Your task to perform on an android device: add a contact in the contacts app Image 0: 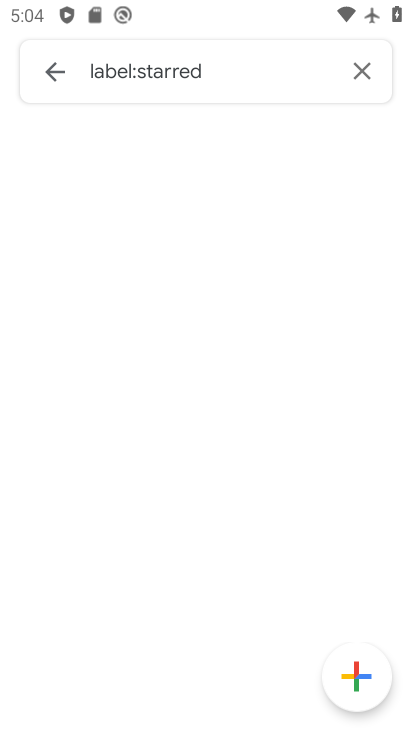
Step 0: drag from (341, 543) to (279, 206)
Your task to perform on an android device: add a contact in the contacts app Image 1: 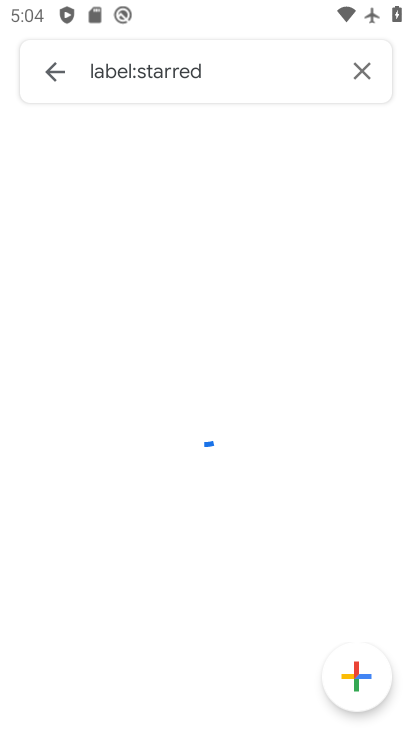
Step 1: press home button
Your task to perform on an android device: add a contact in the contacts app Image 2: 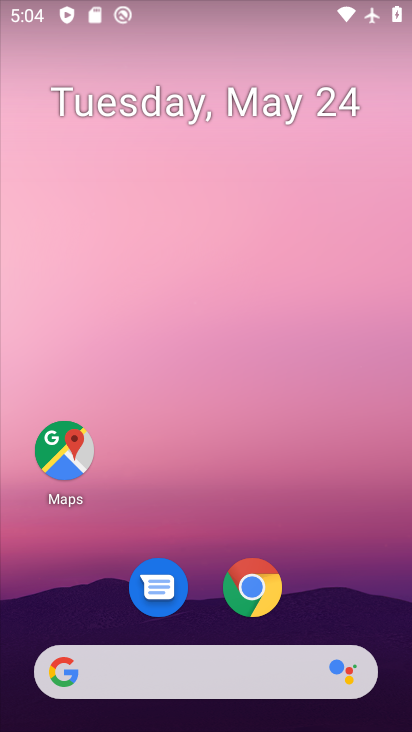
Step 2: drag from (348, 592) to (205, 107)
Your task to perform on an android device: add a contact in the contacts app Image 3: 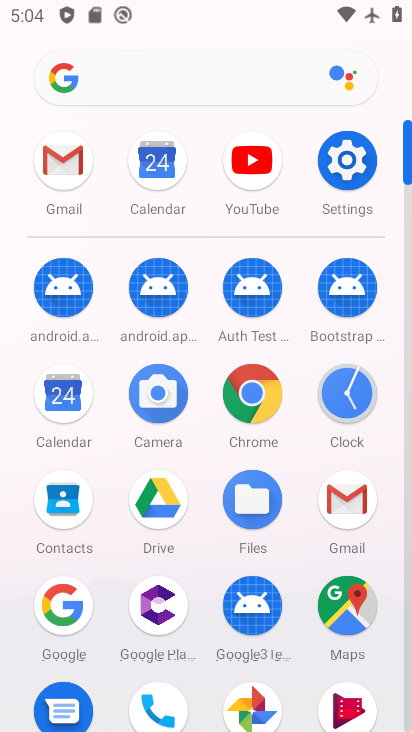
Step 3: click (73, 500)
Your task to perform on an android device: add a contact in the contacts app Image 4: 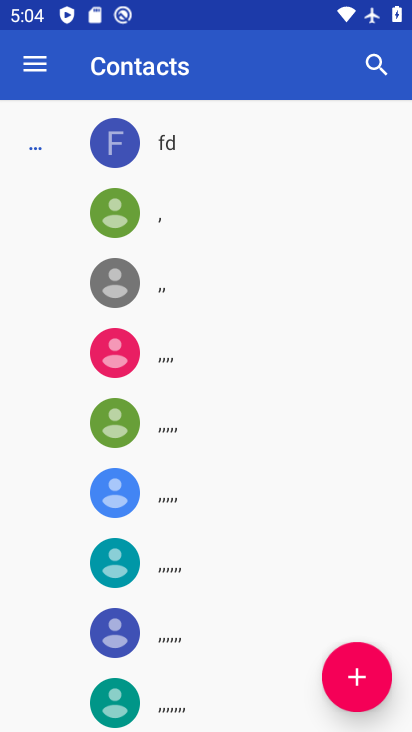
Step 4: click (353, 674)
Your task to perform on an android device: add a contact in the contacts app Image 5: 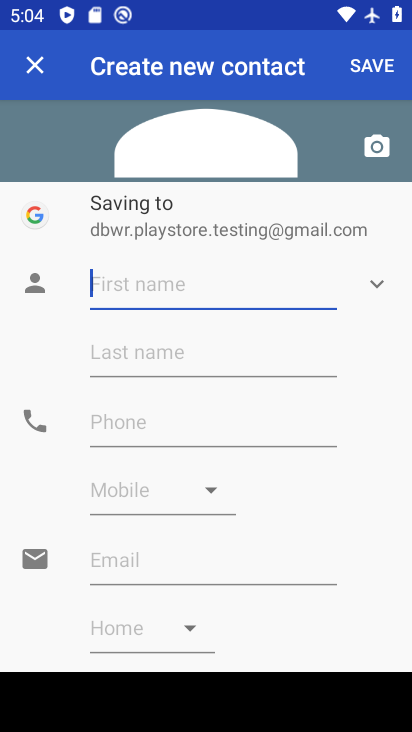
Step 5: type "fgsdfg"
Your task to perform on an android device: add a contact in the contacts app Image 6: 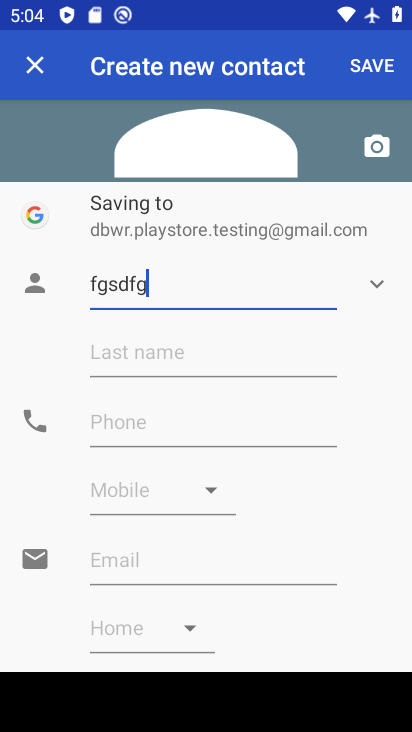
Step 6: type ""
Your task to perform on an android device: add a contact in the contacts app Image 7: 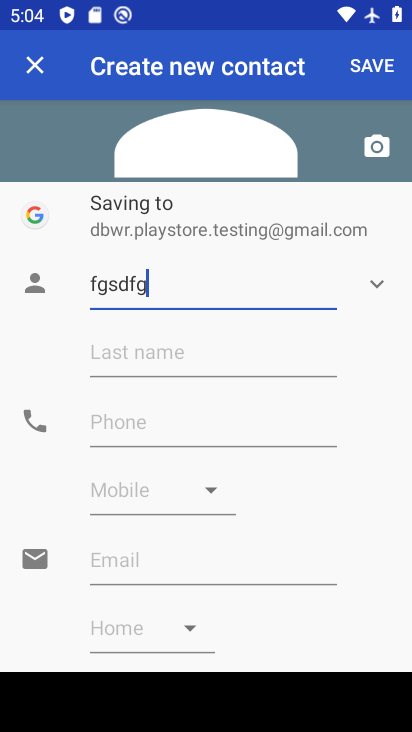
Step 7: click (245, 356)
Your task to perform on an android device: add a contact in the contacts app Image 8: 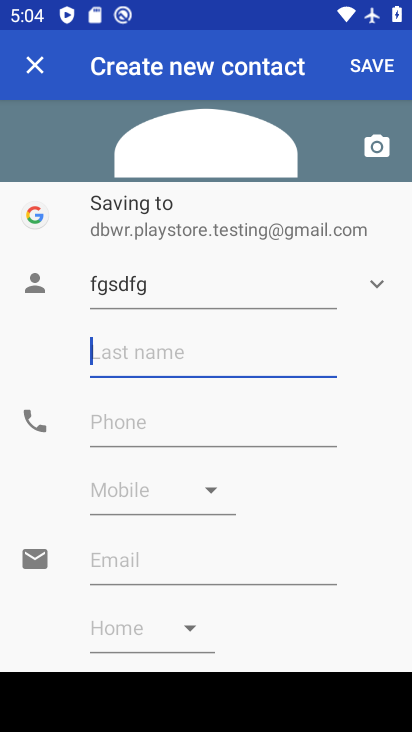
Step 8: type "fgsdfg"
Your task to perform on an android device: add a contact in the contacts app Image 9: 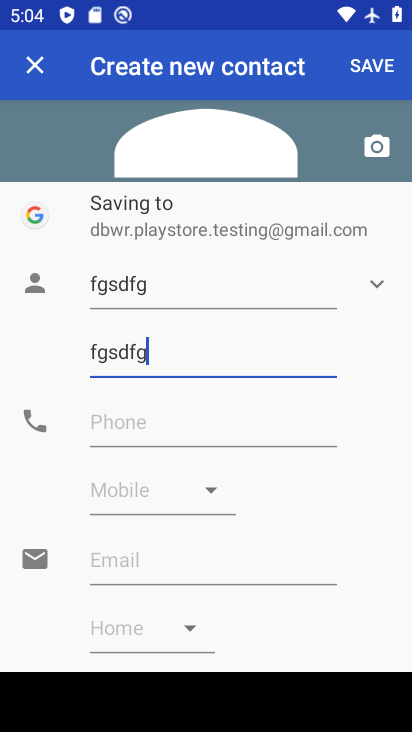
Step 9: type ""
Your task to perform on an android device: add a contact in the contacts app Image 10: 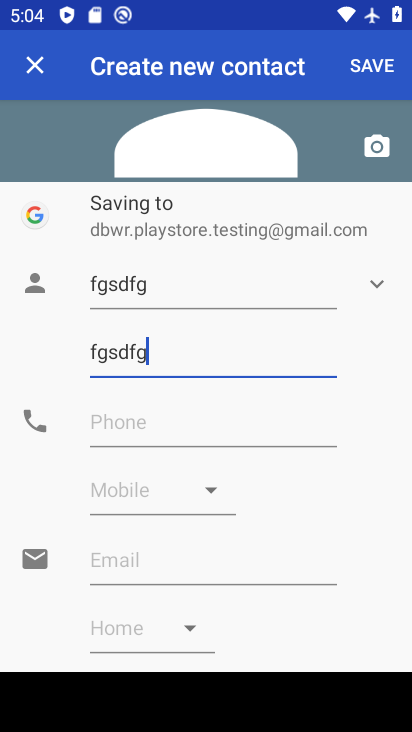
Step 10: click (219, 419)
Your task to perform on an android device: add a contact in the contacts app Image 11: 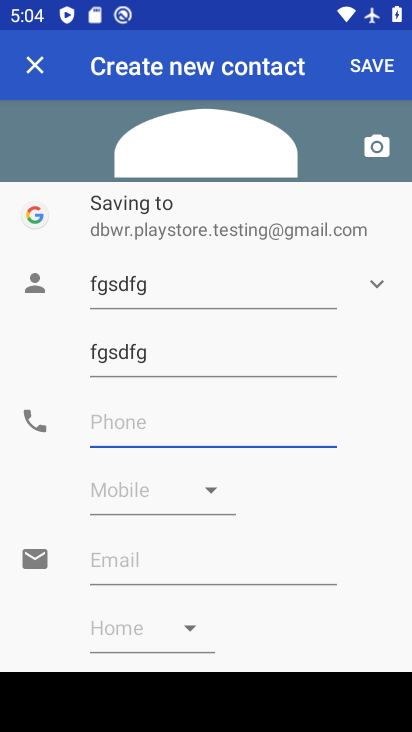
Step 11: type "5634563456"
Your task to perform on an android device: add a contact in the contacts app Image 12: 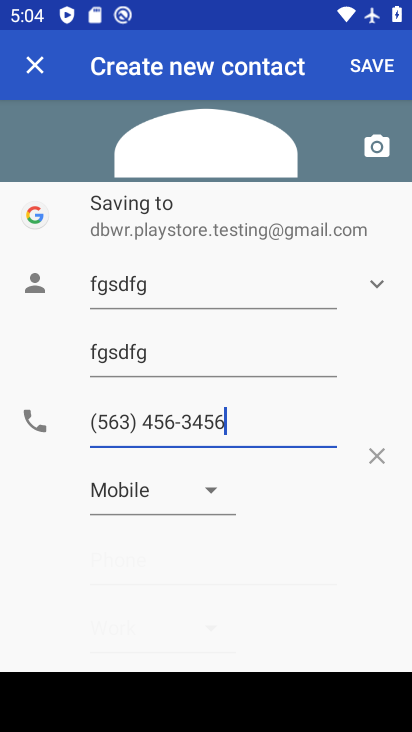
Step 12: type ""
Your task to perform on an android device: add a contact in the contacts app Image 13: 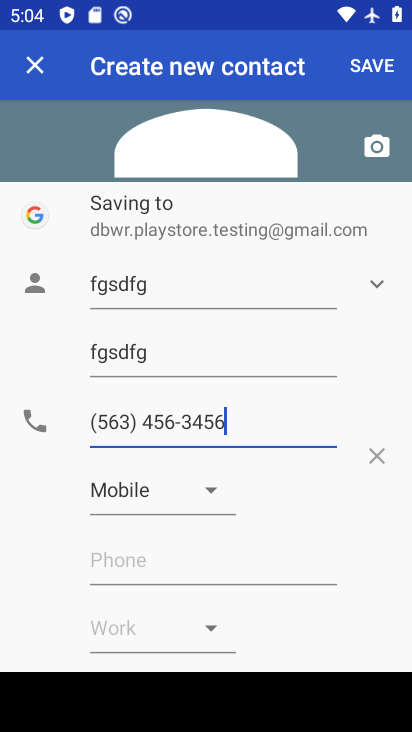
Step 13: click (366, 56)
Your task to perform on an android device: add a contact in the contacts app Image 14: 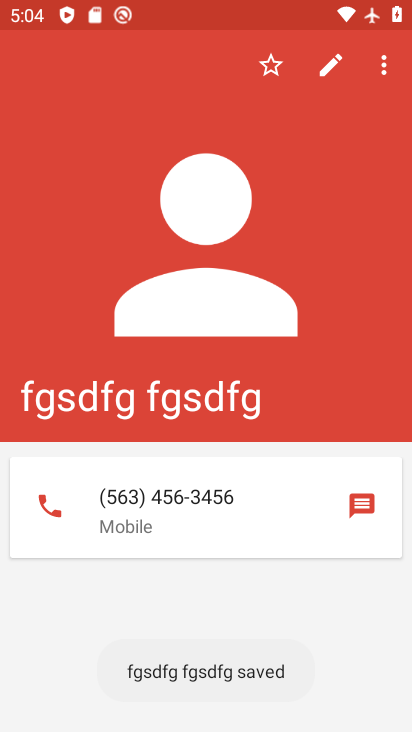
Step 14: task complete